Your task to perform on an android device: delete location history Image 0: 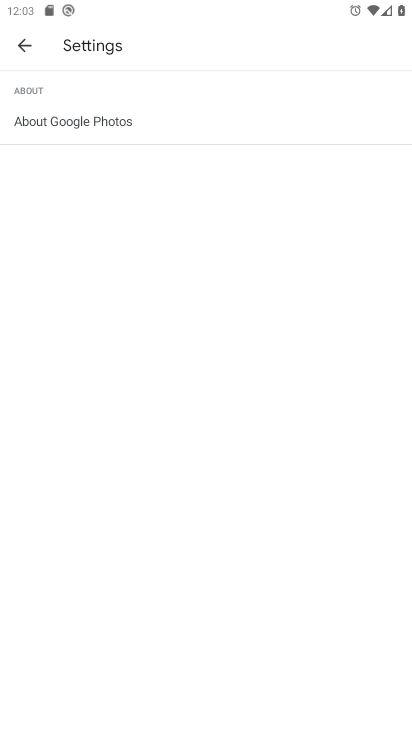
Step 0: press home button
Your task to perform on an android device: delete location history Image 1: 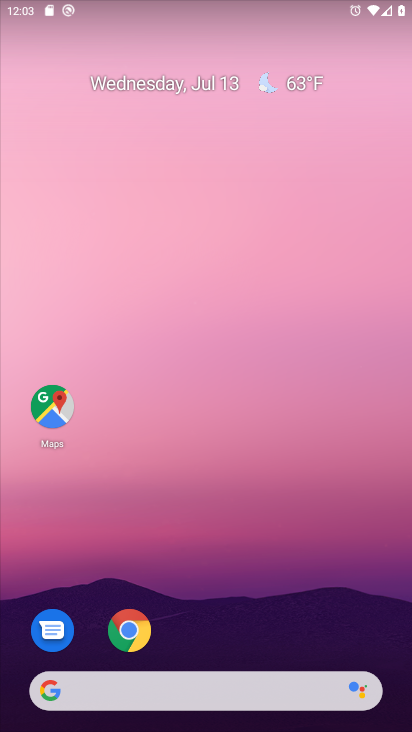
Step 1: drag from (246, 671) to (222, 111)
Your task to perform on an android device: delete location history Image 2: 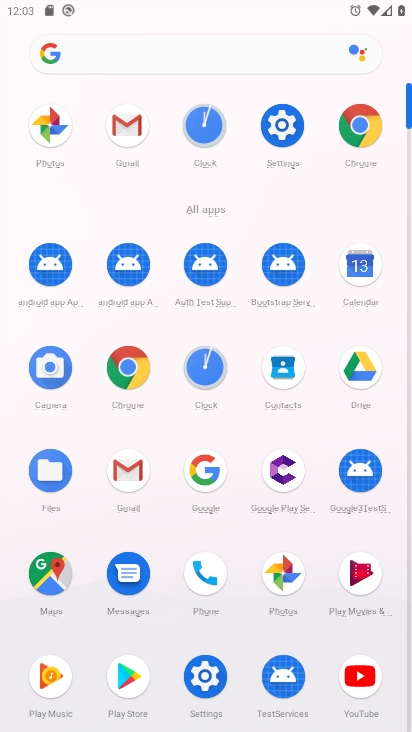
Step 2: click (289, 137)
Your task to perform on an android device: delete location history Image 3: 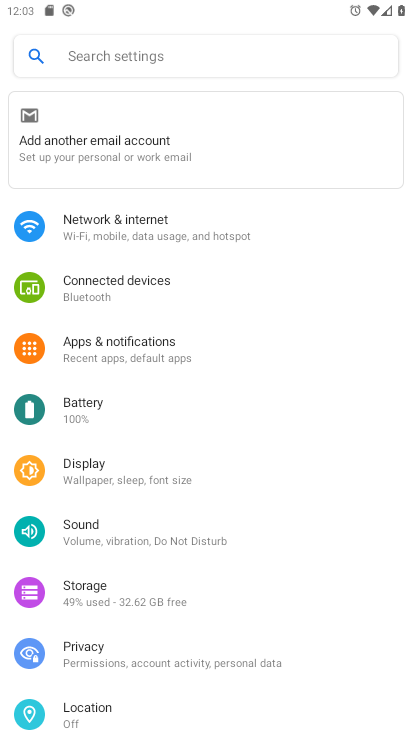
Step 3: press home button
Your task to perform on an android device: delete location history Image 4: 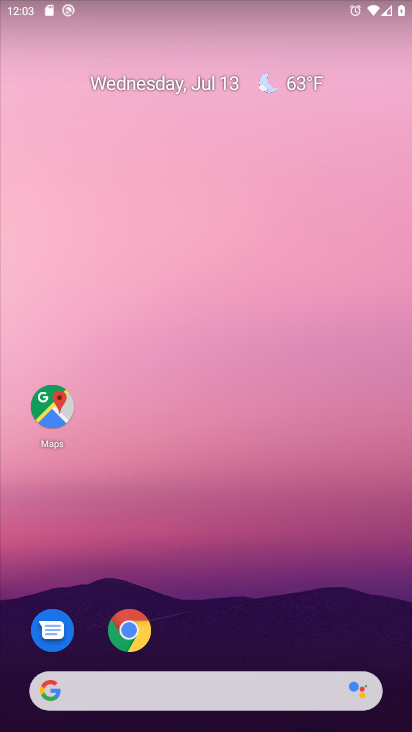
Step 4: click (54, 401)
Your task to perform on an android device: delete location history Image 5: 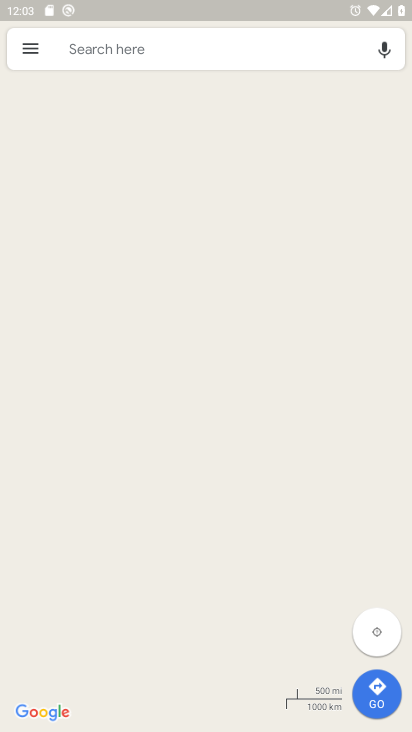
Step 5: click (30, 49)
Your task to perform on an android device: delete location history Image 6: 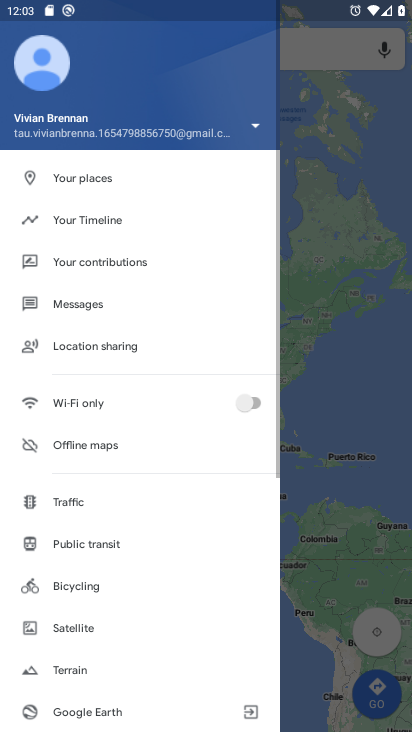
Step 6: click (113, 222)
Your task to perform on an android device: delete location history Image 7: 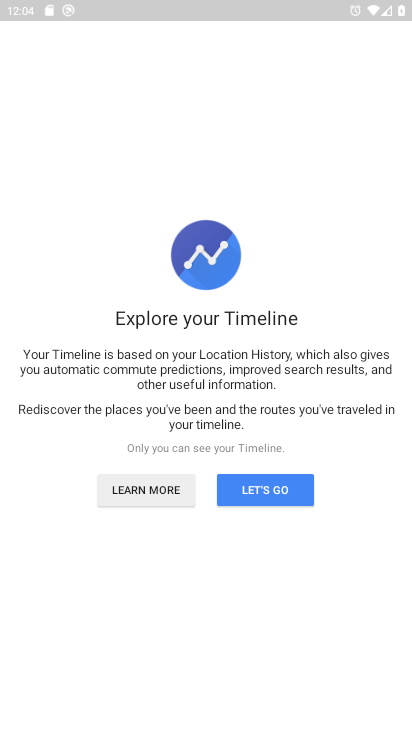
Step 7: click (254, 485)
Your task to perform on an android device: delete location history Image 8: 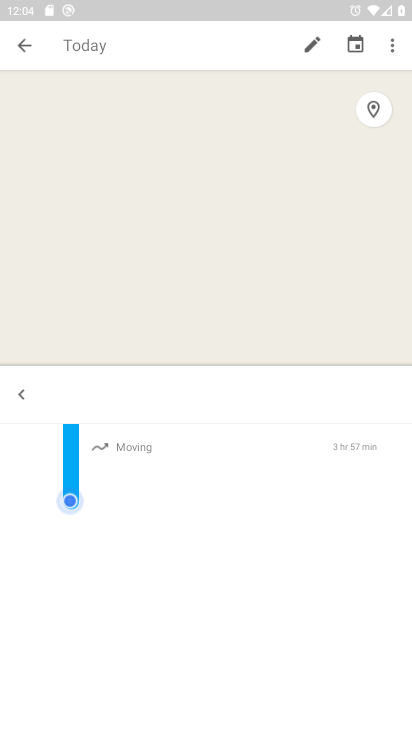
Step 8: click (389, 43)
Your task to perform on an android device: delete location history Image 9: 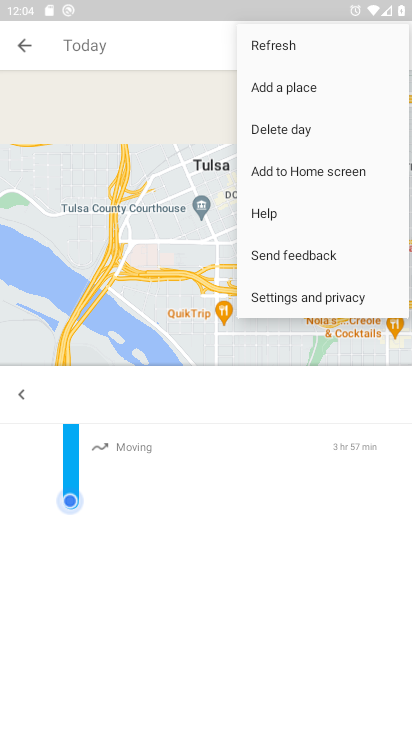
Step 9: click (325, 289)
Your task to perform on an android device: delete location history Image 10: 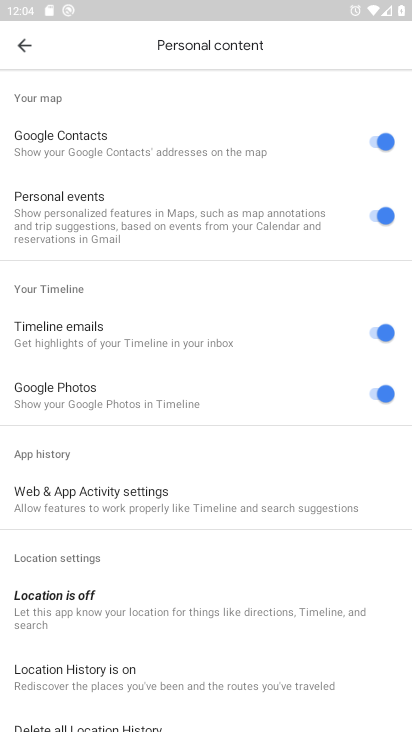
Step 10: drag from (161, 676) to (183, 297)
Your task to perform on an android device: delete location history Image 11: 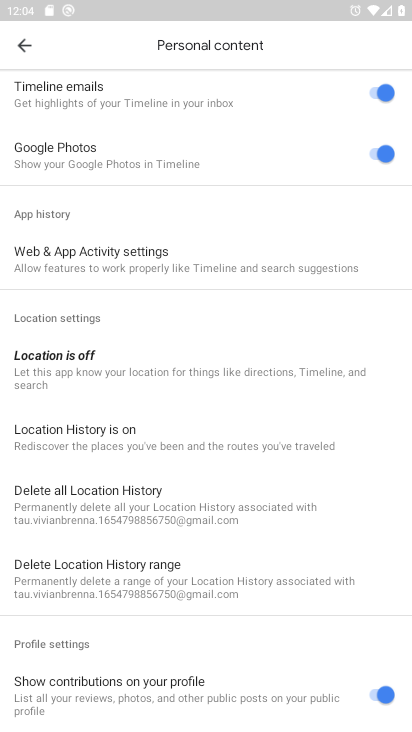
Step 11: click (182, 504)
Your task to perform on an android device: delete location history Image 12: 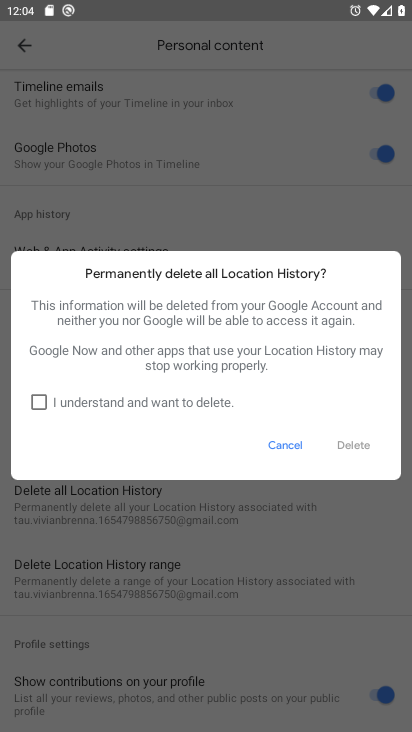
Step 12: click (96, 395)
Your task to perform on an android device: delete location history Image 13: 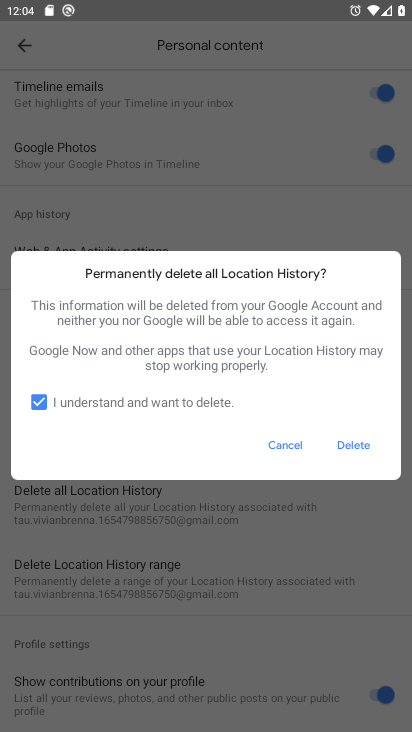
Step 13: click (355, 443)
Your task to perform on an android device: delete location history Image 14: 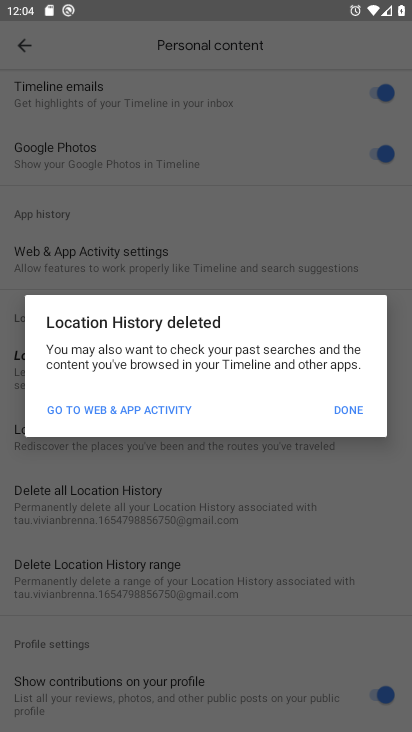
Step 14: click (352, 405)
Your task to perform on an android device: delete location history Image 15: 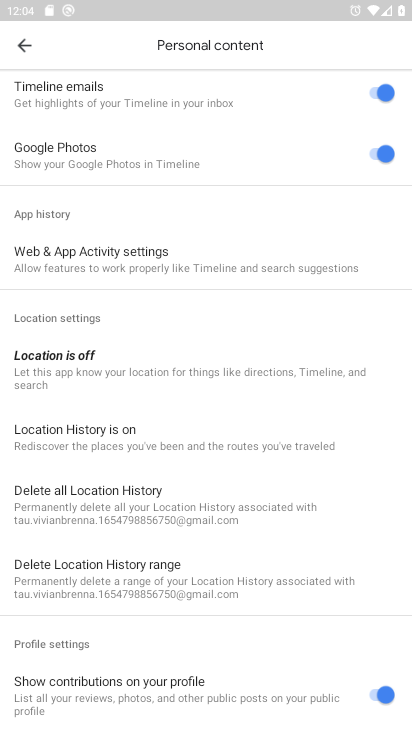
Step 15: task complete